Your task to perform on an android device: Go to battery settings Image 0: 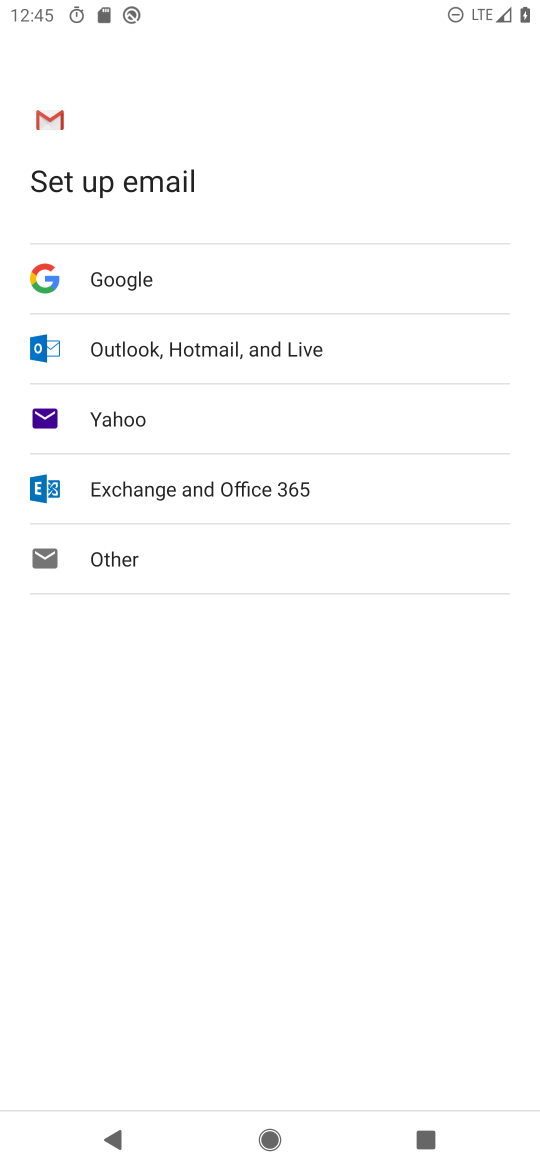
Step 0: press home button
Your task to perform on an android device: Go to battery settings Image 1: 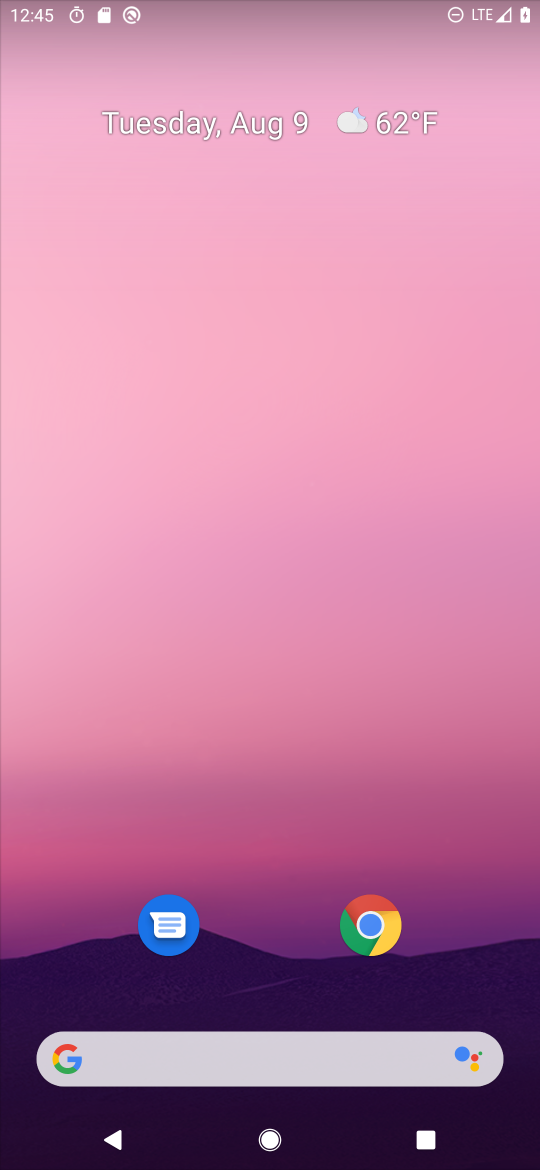
Step 1: drag from (254, 926) to (299, 231)
Your task to perform on an android device: Go to battery settings Image 2: 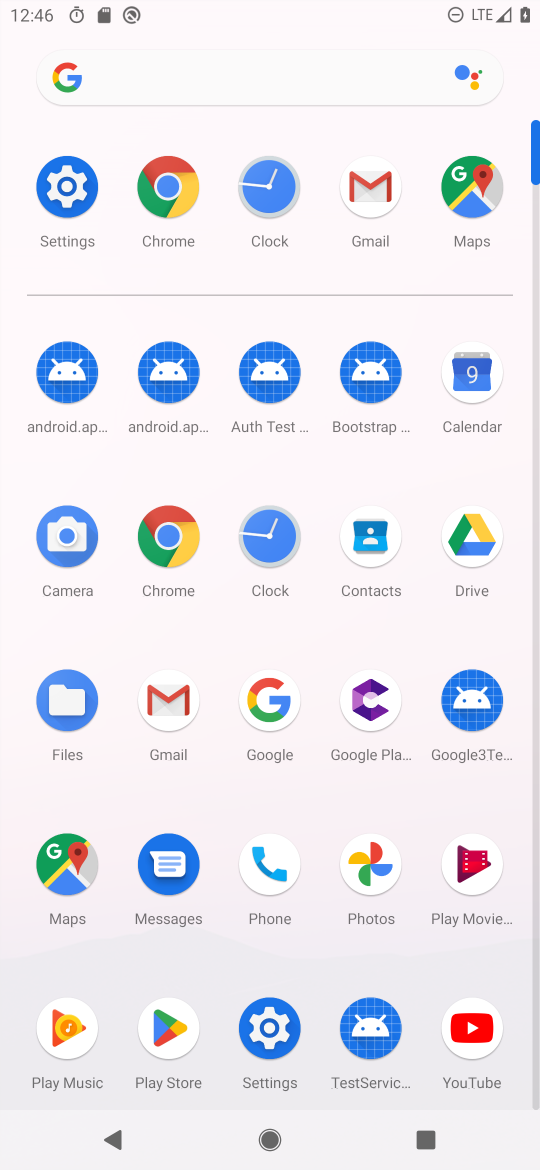
Step 2: click (270, 1049)
Your task to perform on an android device: Go to battery settings Image 3: 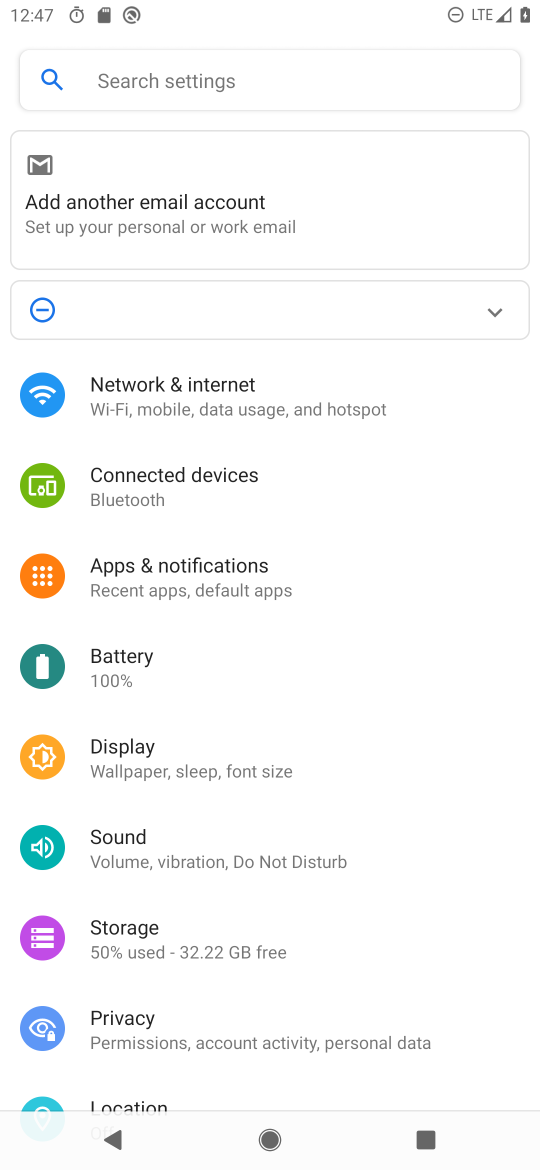
Step 3: drag from (260, 888) to (280, 520)
Your task to perform on an android device: Go to battery settings Image 4: 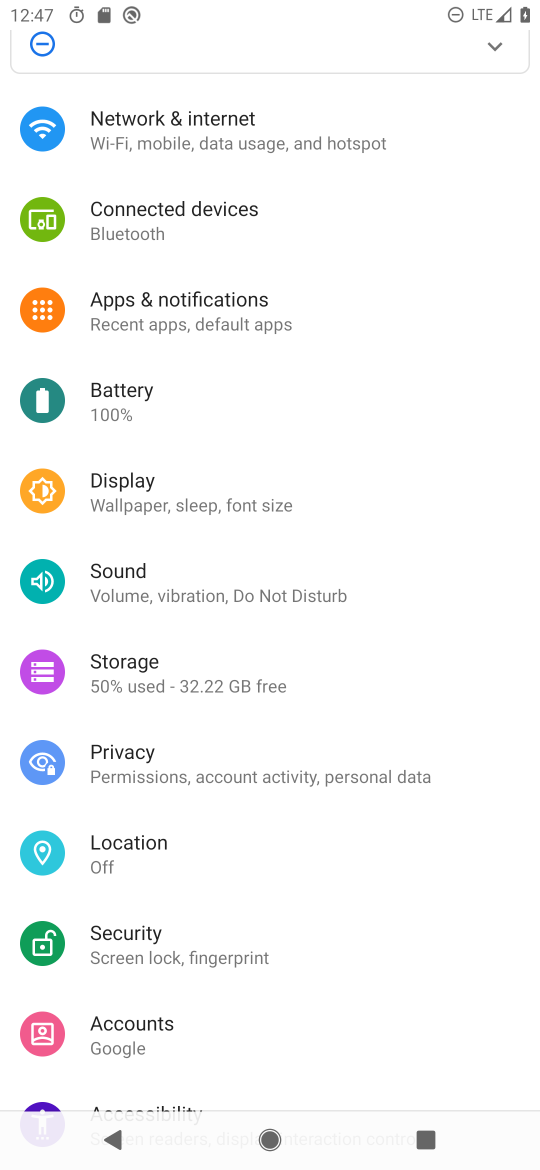
Step 4: click (154, 406)
Your task to perform on an android device: Go to battery settings Image 5: 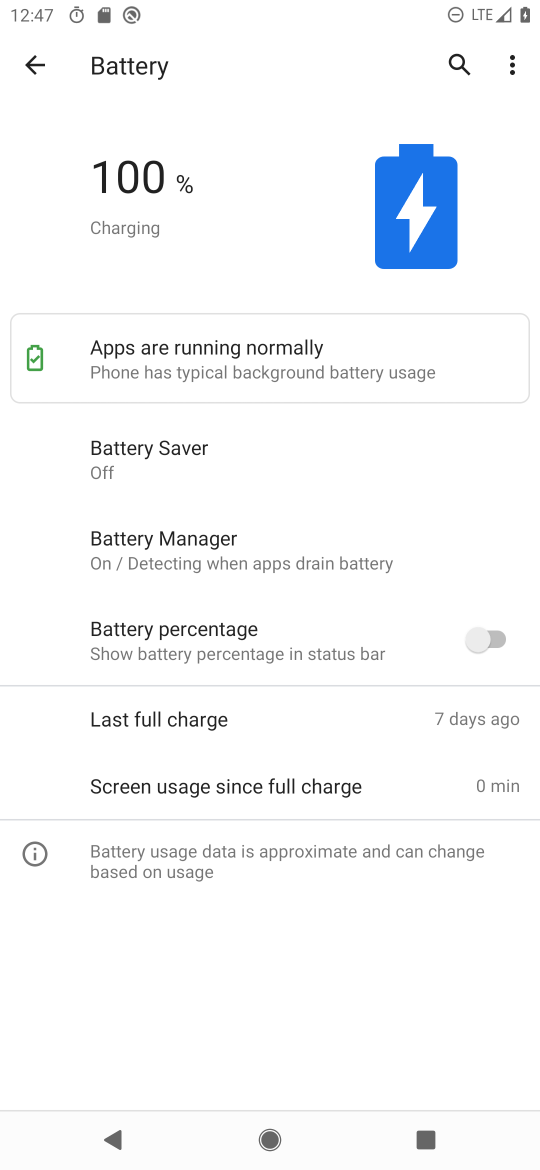
Step 5: task complete